Your task to perform on an android device: Show me recent news Image 0: 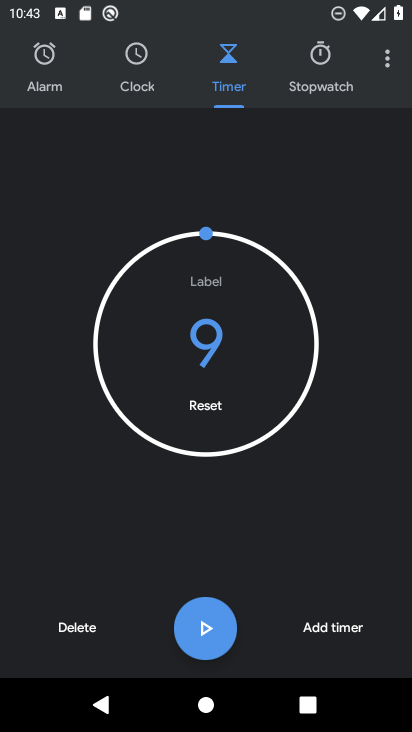
Step 0: press home button
Your task to perform on an android device: Show me recent news Image 1: 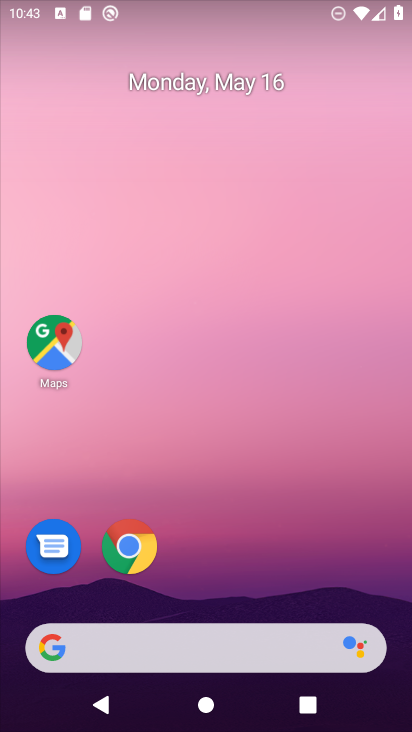
Step 1: click (234, 645)
Your task to perform on an android device: Show me recent news Image 2: 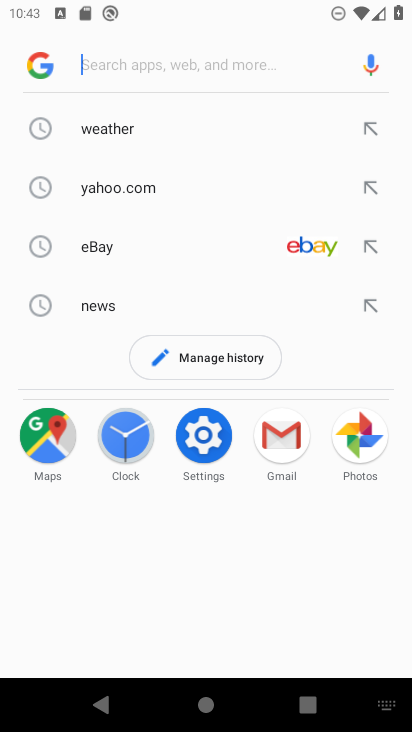
Step 2: click (101, 309)
Your task to perform on an android device: Show me recent news Image 3: 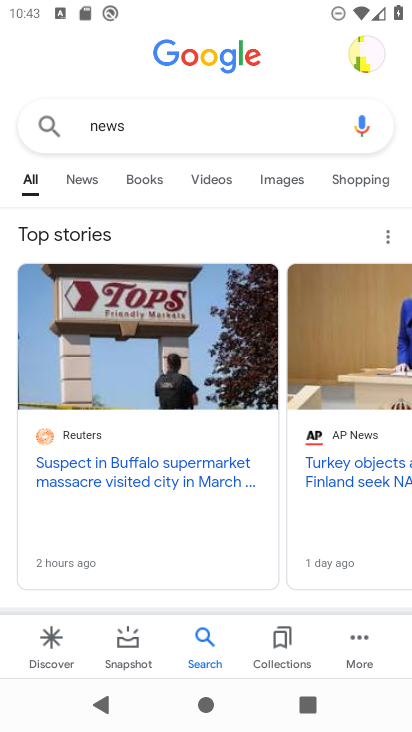
Step 3: task complete